Your task to perform on an android device: What's on my calendar today? Image 0: 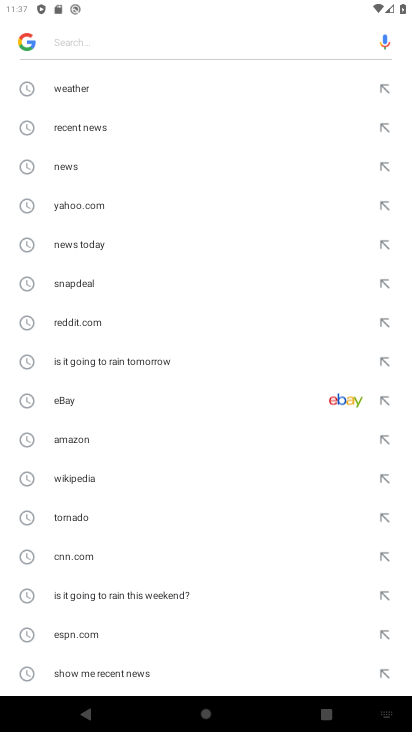
Step 0: task impossible